Your task to perform on an android device: Open ESPN.com Image 0: 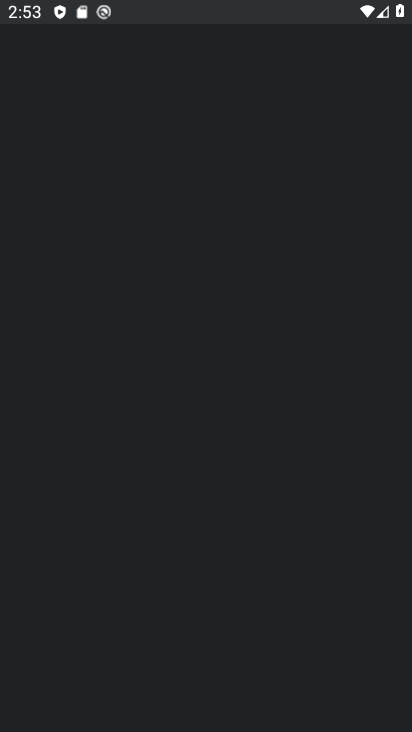
Step 0: drag from (253, 691) to (222, 137)
Your task to perform on an android device: Open ESPN.com Image 1: 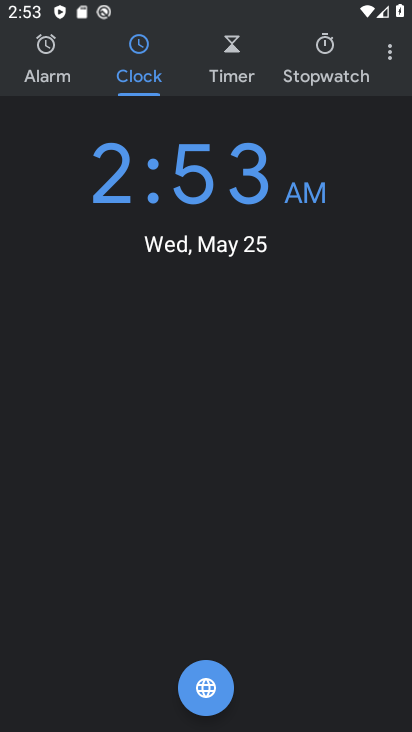
Step 1: press back button
Your task to perform on an android device: Open ESPN.com Image 2: 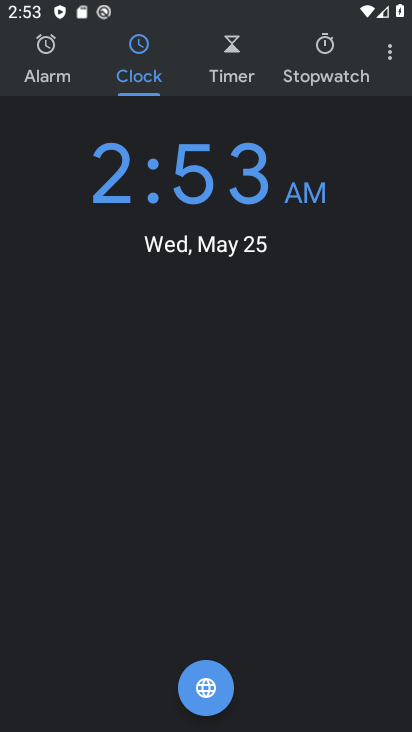
Step 2: press back button
Your task to perform on an android device: Open ESPN.com Image 3: 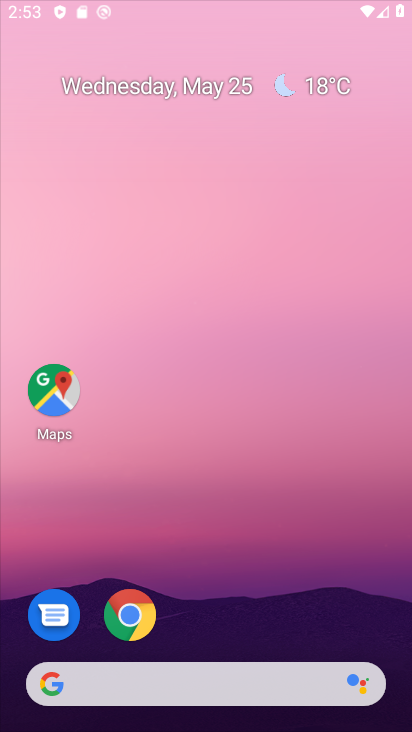
Step 3: press back button
Your task to perform on an android device: Open ESPN.com Image 4: 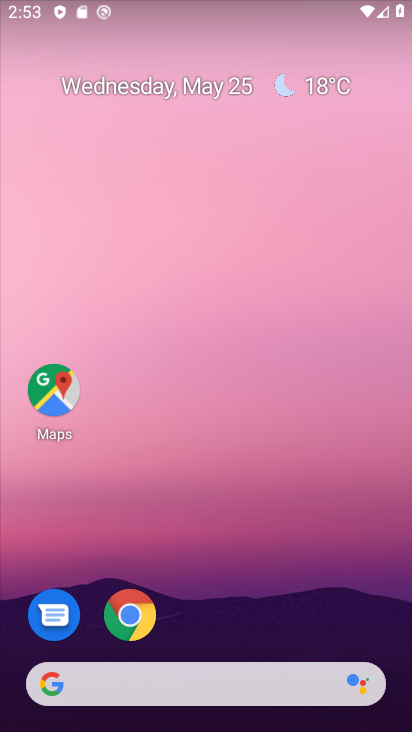
Step 4: press back button
Your task to perform on an android device: Open ESPN.com Image 5: 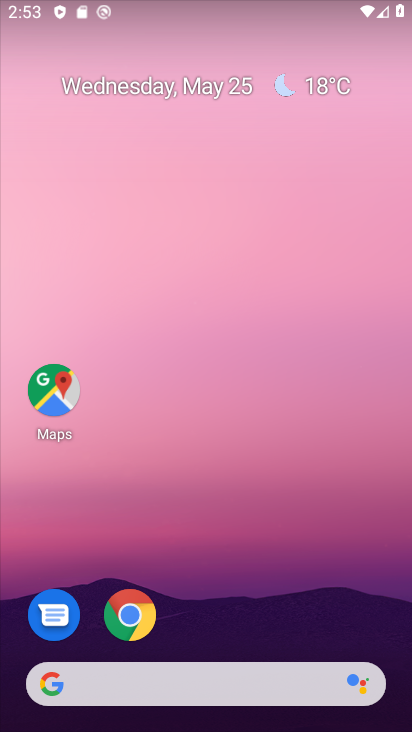
Step 5: press home button
Your task to perform on an android device: Open ESPN.com Image 6: 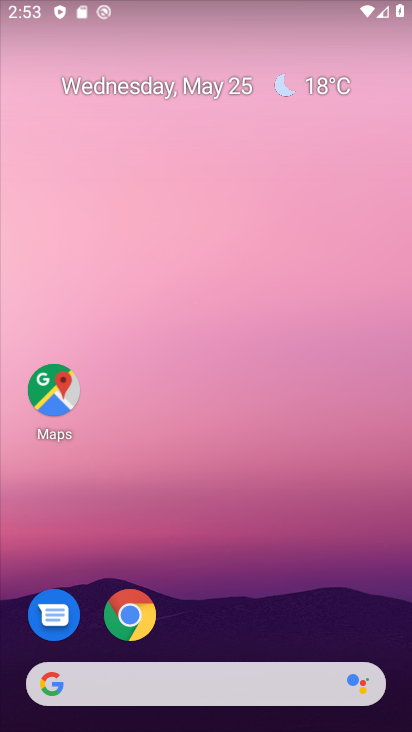
Step 6: drag from (251, 686) to (185, 225)
Your task to perform on an android device: Open ESPN.com Image 7: 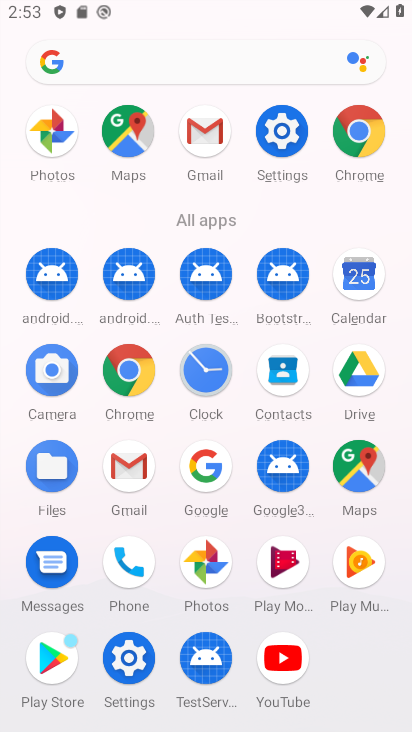
Step 7: click (358, 122)
Your task to perform on an android device: Open ESPN.com Image 8: 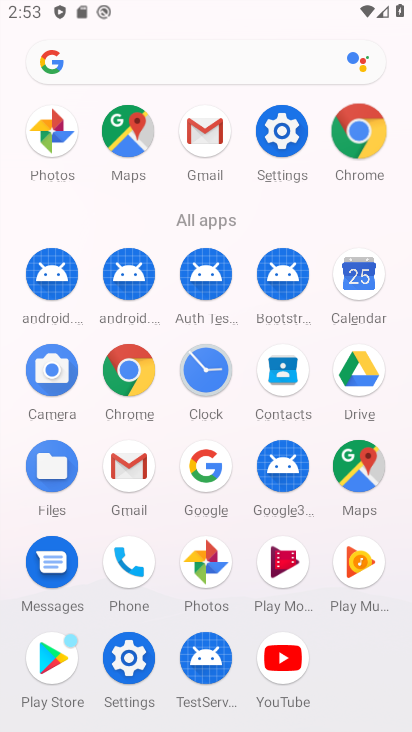
Step 8: click (358, 122)
Your task to perform on an android device: Open ESPN.com Image 9: 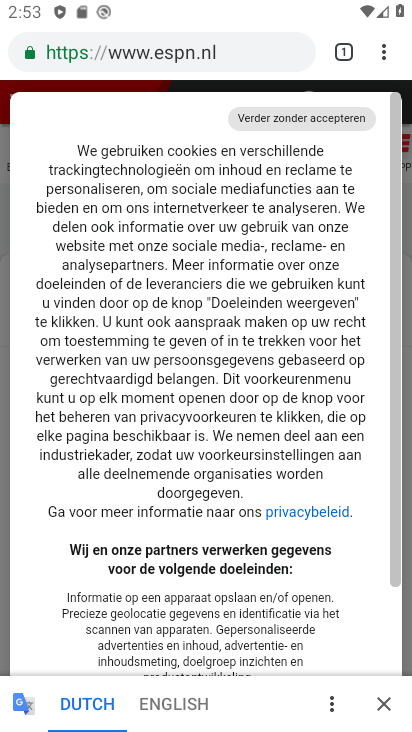
Step 9: click (383, 55)
Your task to perform on an android device: Open ESPN.com Image 10: 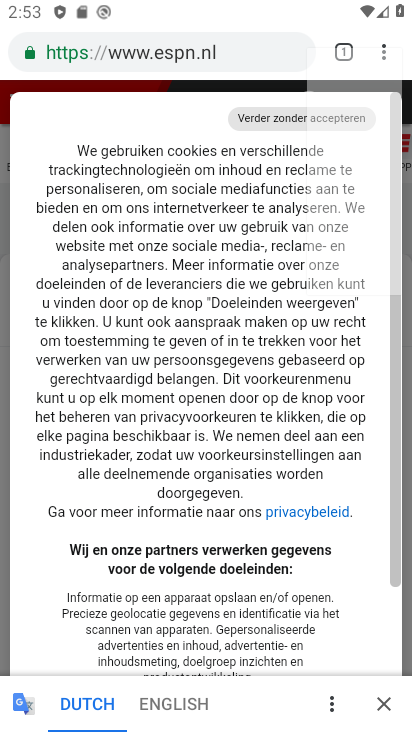
Step 10: click (383, 55)
Your task to perform on an android device: Open ESPN.com Image 11: 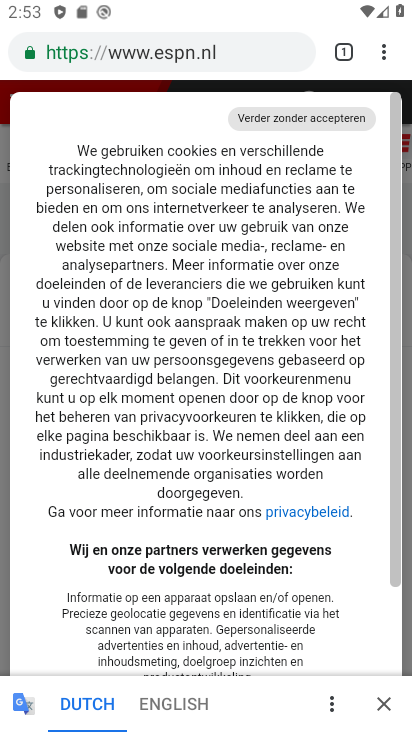
Step 11: click (398, 75)
Your task to perform on an android device: Open ESPN.com Image 12: 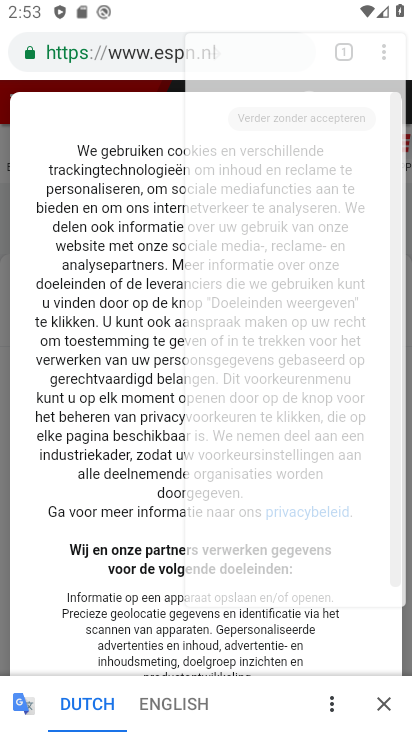
Step 12: click (378, 48)
Your task to perform on an android device: Open ESPN.com Image 13: 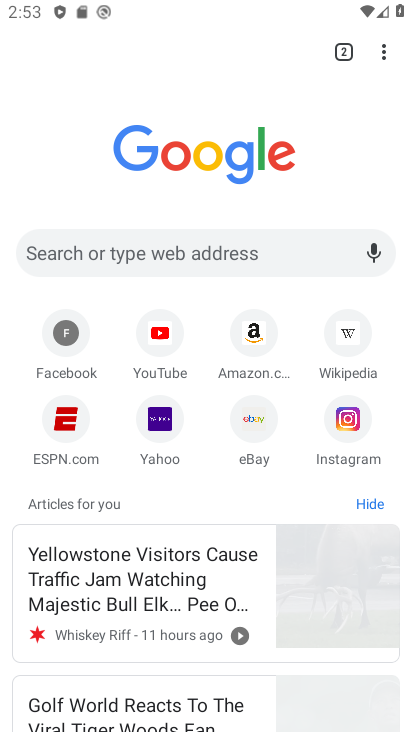
Step 13: click (382, 50)
Your task to perform on an android device: Open ESPN.com Image 14: 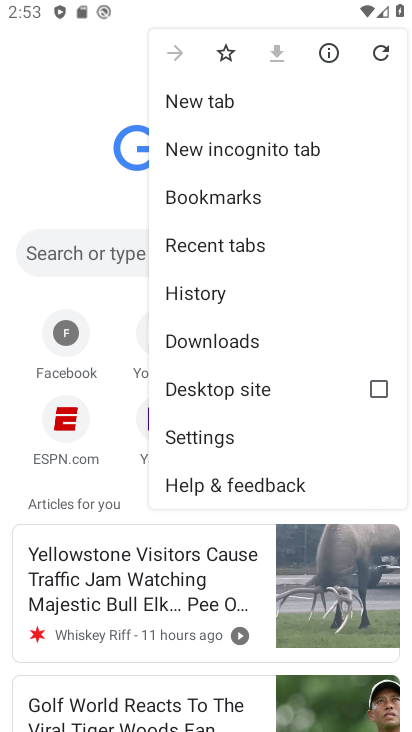
Step 14: click (59, 406)
Your task to perform on an android device: Open ESPN.com Image 15: 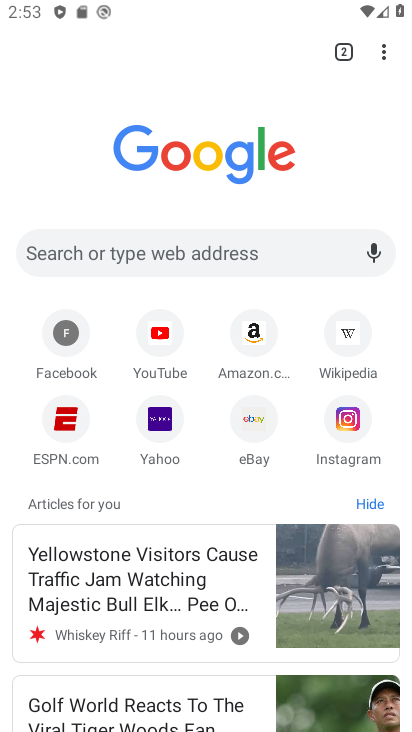
Step 15: click (59, 406)
Your task to perform on an android device: Open ESPN.com Image 16: 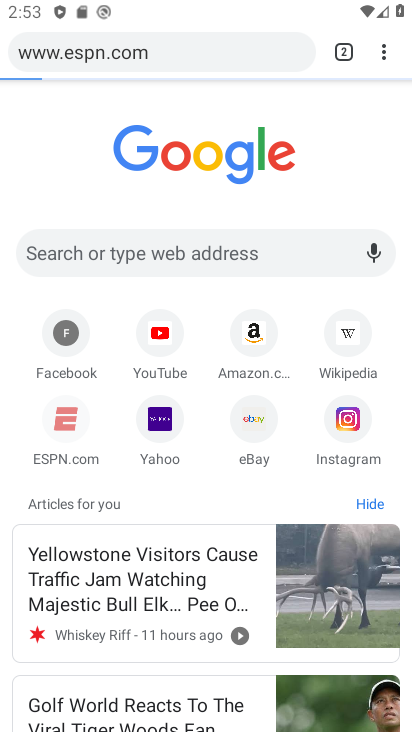
Step 16: click (60, 405)
Your task to perform on an android device: Open ESPN.com Image 17: 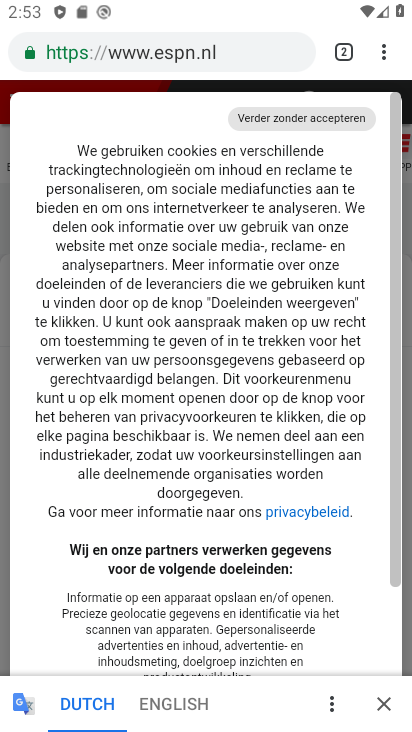
Step 17: task complete